Your task to perform on an android device: move a message to another label in the gmail app Image 0: 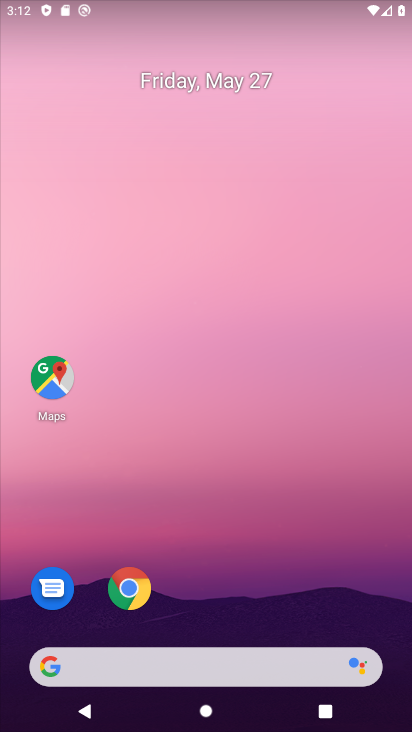
Step 0: drag from (343, 499) to (367, 148)
Your task to perform on an android device: move a message to another label in the gmail app Image 1: 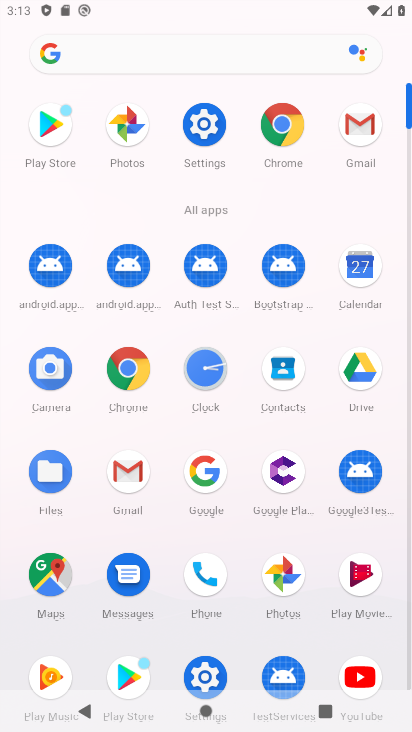
Step 1: click (352, 126)
Your task to perform on an android device: move a message to another label in the gmail app Image 2: 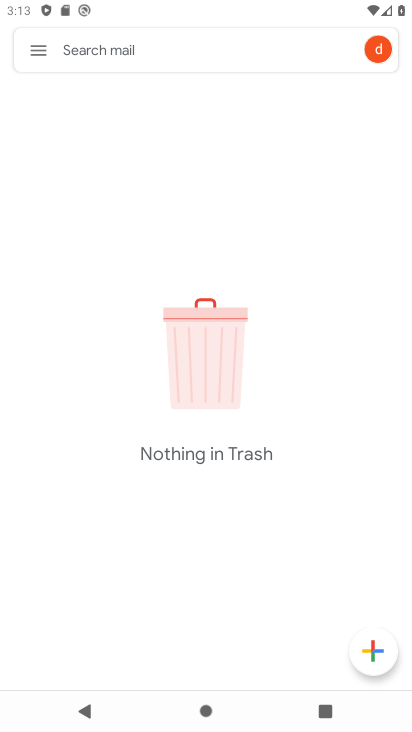
Step 2: click (33, 45)
Your task to perform on an android device: move a message to another label in the gmail app Image 3: 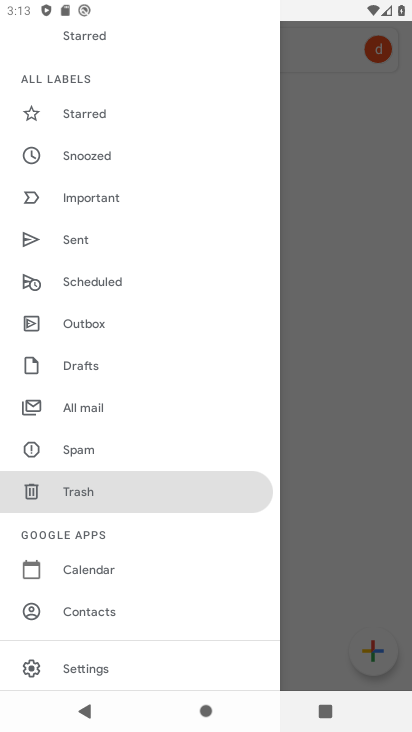
Step 3: click (98, 415)
Your task to perform on an android device: move a message to another label in the gmail app Image 4: 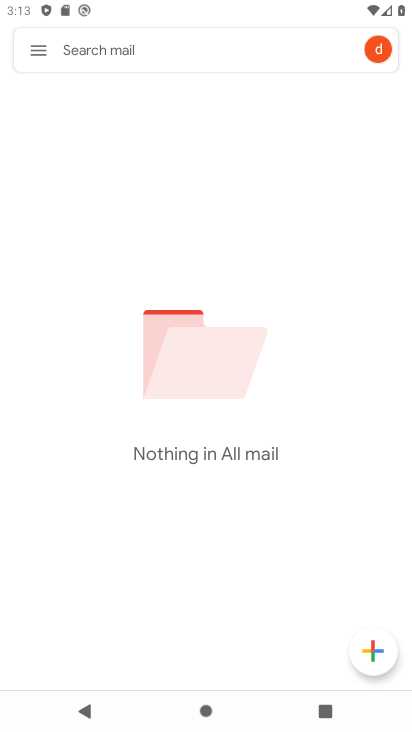
Step 4: task complete